Your task to perform on an android device: change the clock display to analog Image 0: 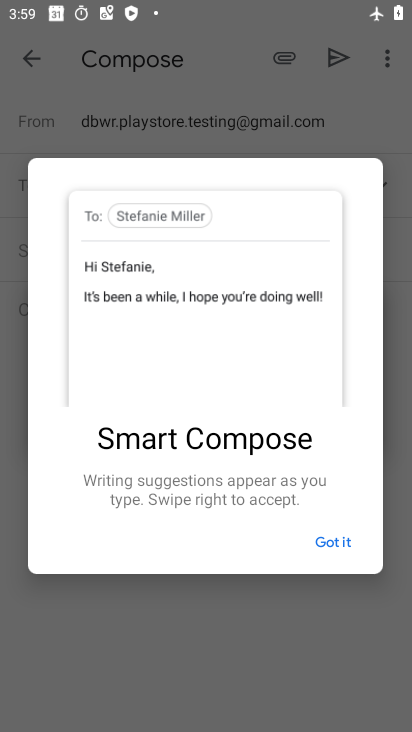
Step 0: press home button
Your task to perform on an android device: change the clock display to analog Image 1: 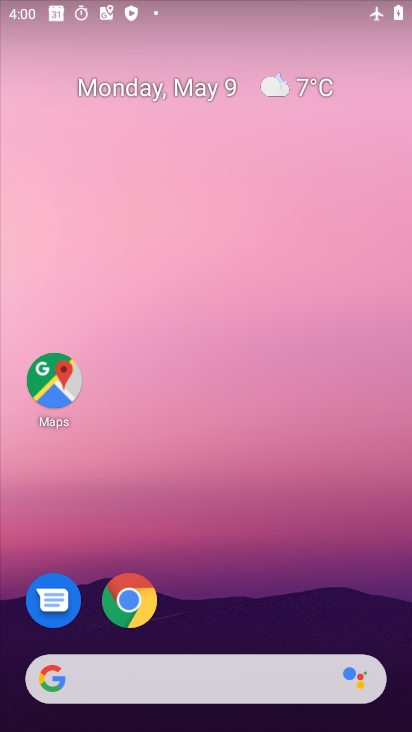
Step 1: drag from (312, 603) to (134, 214)
Your task to perform on an android device: change the clock display to analog Image 2: 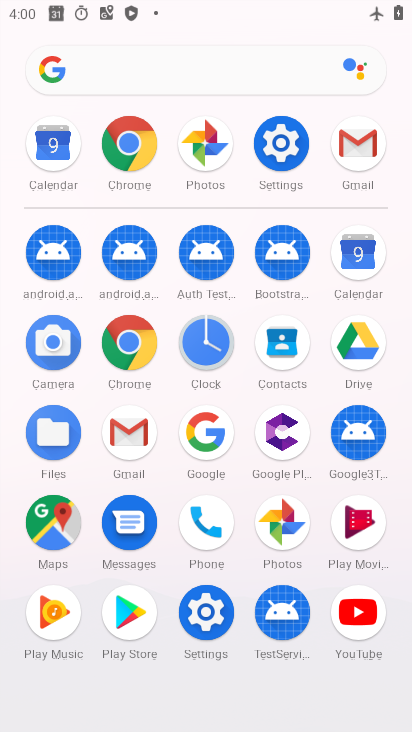
Step 2: click (218, 341)
Your task to perform on an android device: change the clock display to analog Image 3: 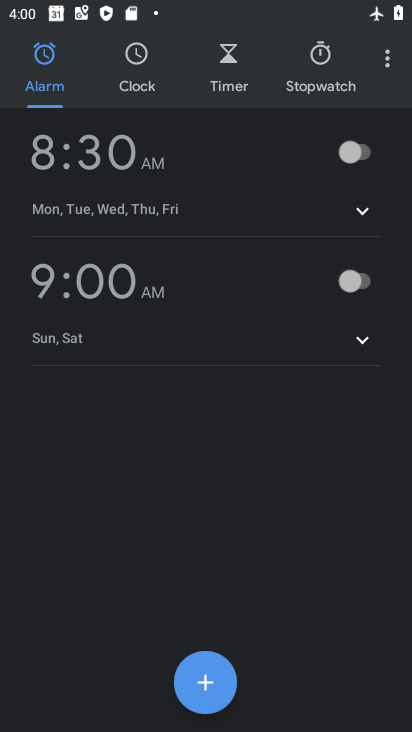
Step 3: click (387, 67)
Your task to perform on an android device: change the clock display to analog Image 4: 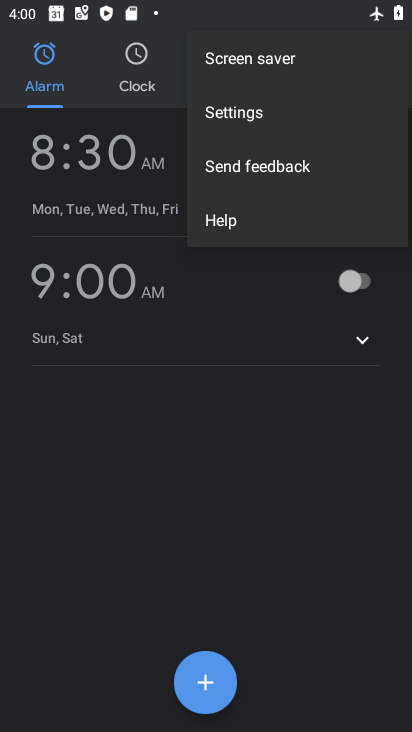
Step 4: click (257, 123)
Your task to perform on an android device: change the clock display to analog Image 5: 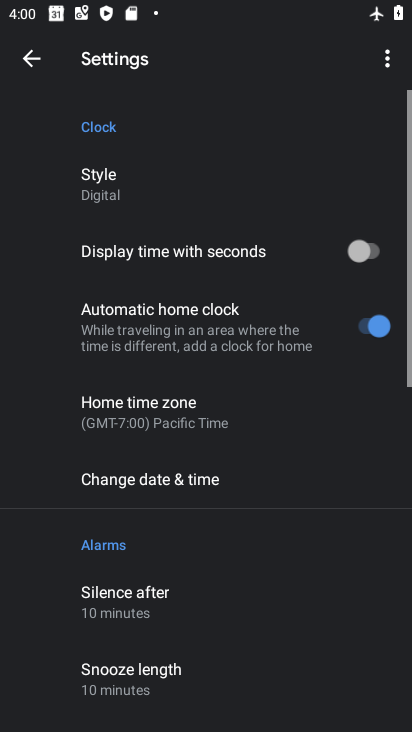
Step 5: click (118, 202)
Your task to perform on an android device: change the clock display to analog Image 6: 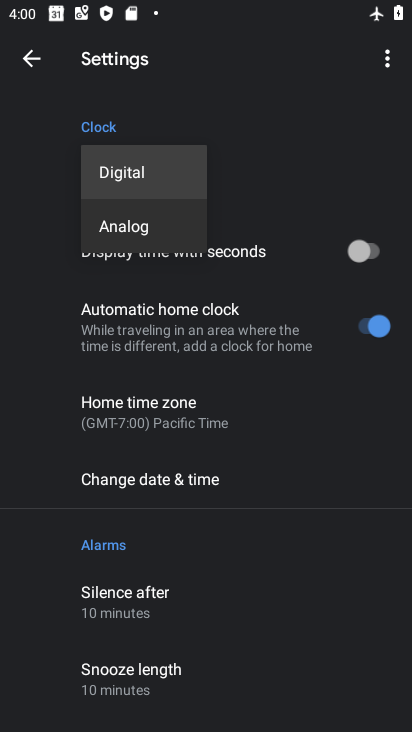
Step 6: click (163, 239)
Your task to perform on an android device: change the clock display to analog Image 7: 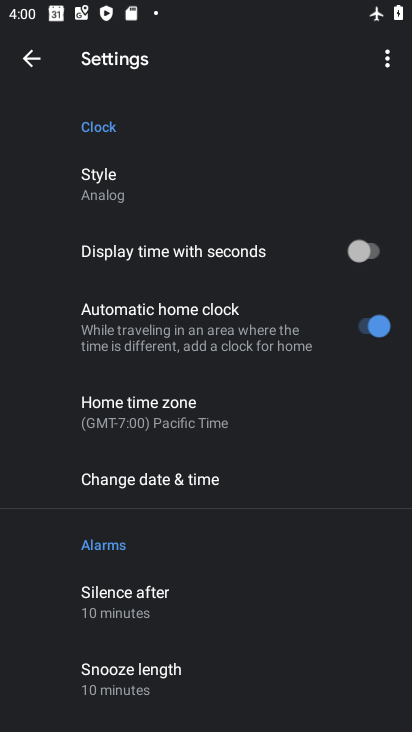
Step 7: task complete